Your task to perform on an android device: Open Google Chrome and click the shortcut for Amazon.com Image 0: 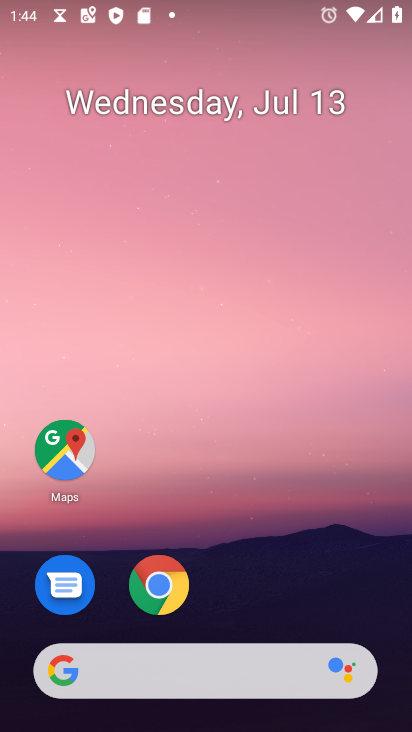
Step 0: drag from (189, 661) to (328, 95)
Your task to perform on an android device: Open Google Chrome and click the shortcut for Amazon.com Image 1: 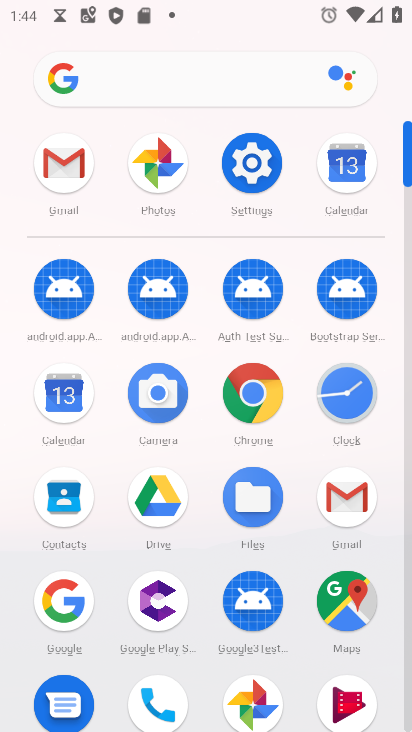
Step 1: click (260, 402)
Your task to perform on an android device: Open Google Chrome and click the shortcut for Amazon.com Image 2: 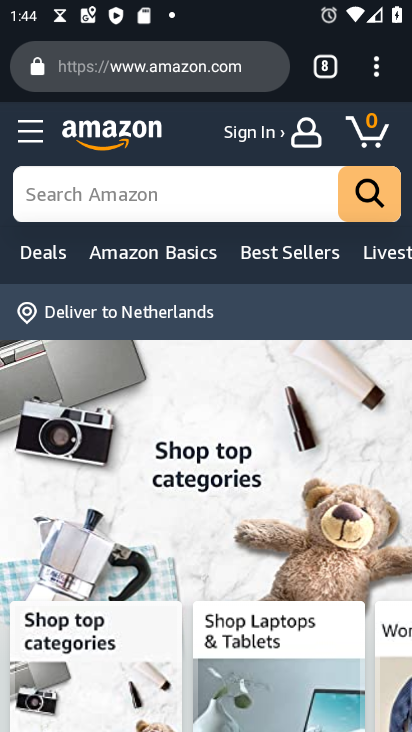
Step 2: task complete